Your task to perform on an android device: turn notification dots on Image 0: 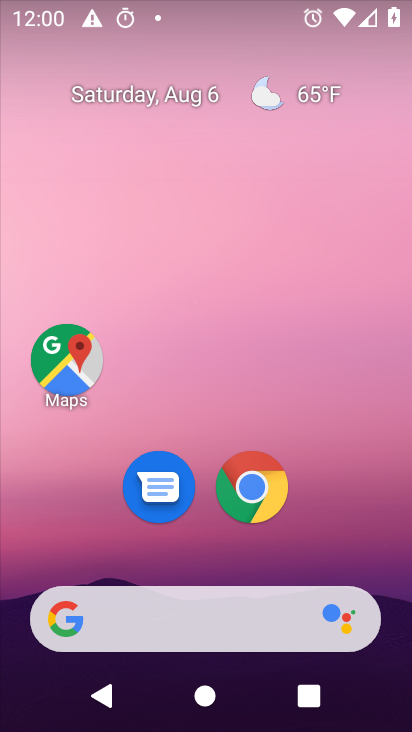
Step 0: drag from (157, 533) to (283, 40)
Your task to perform on an android device: turn notification dots on Image 1: 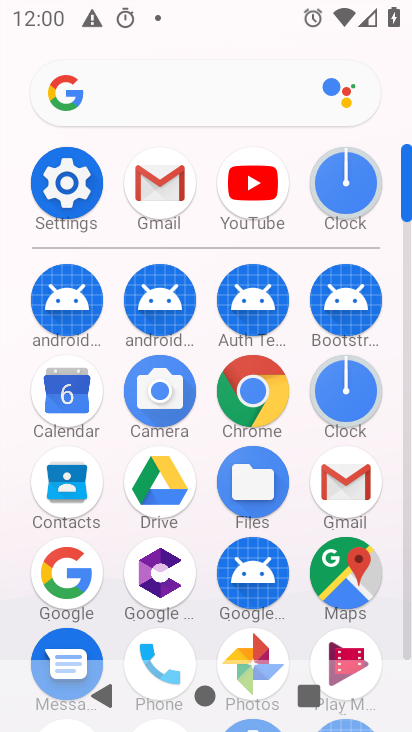
Step 1: click (55, 182)
Your task to perform on an android device: turn notification dots on Image 2: 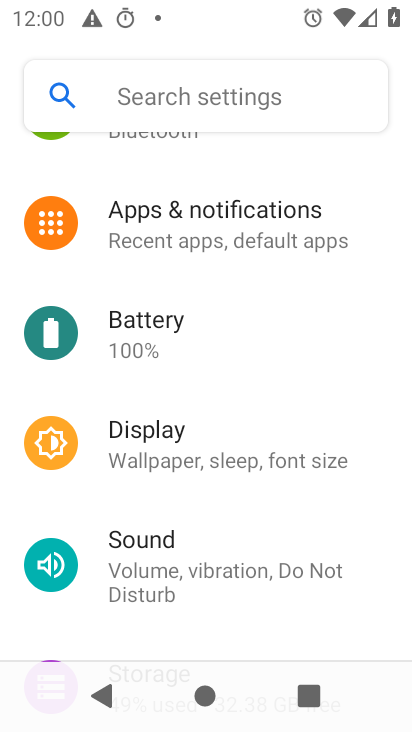
Step 2: click (282, 231)
Your task to perform on an android device: turn notification dots on Image 3: 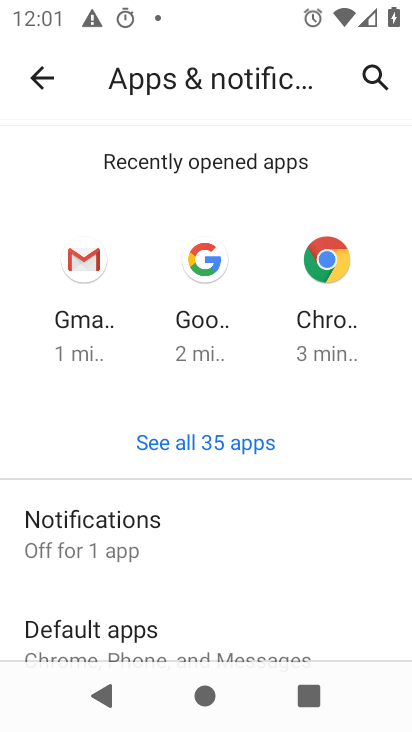
Step 3: click (282, 231)
Your task to perform on an android device: turn notification dots on Image 4: 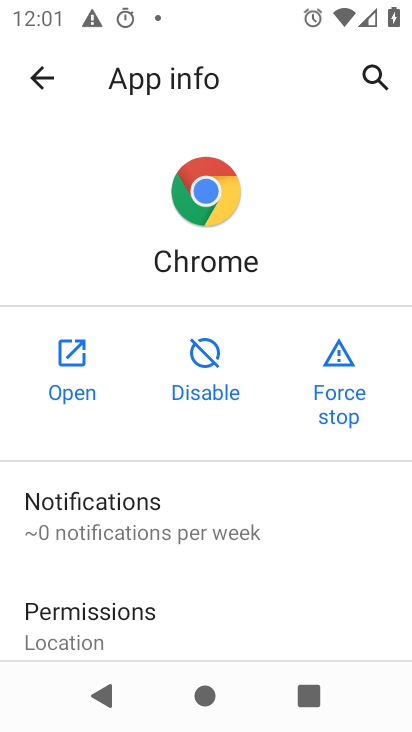
Step 4: click (76, 520)
Your task to perform on an android device: turn notification dots on Image 5: 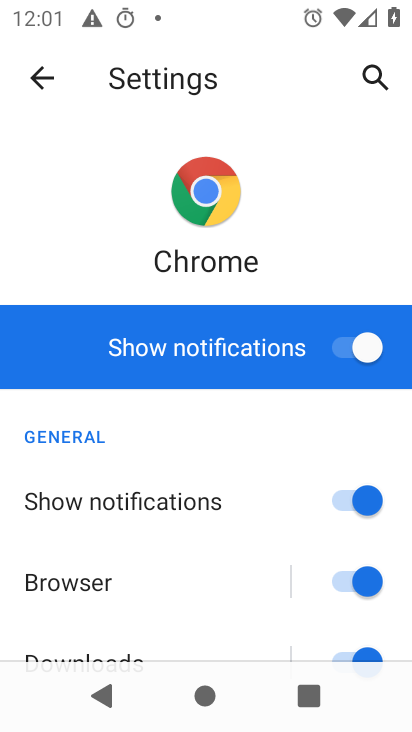
Step 5: drag from (172, 613) to (288, 74)
Your task to perform on an android device: turn notification dots on Image 6: 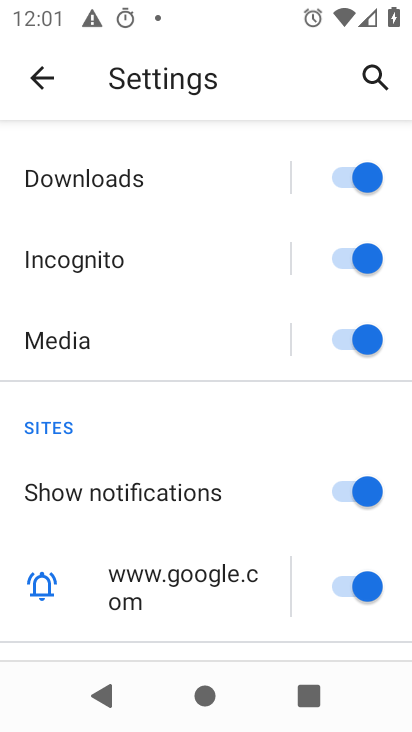
Step 6: drag from (210, 618) to (304, 120)
Your task to perform on an android device: turn notification dots on Image 7: 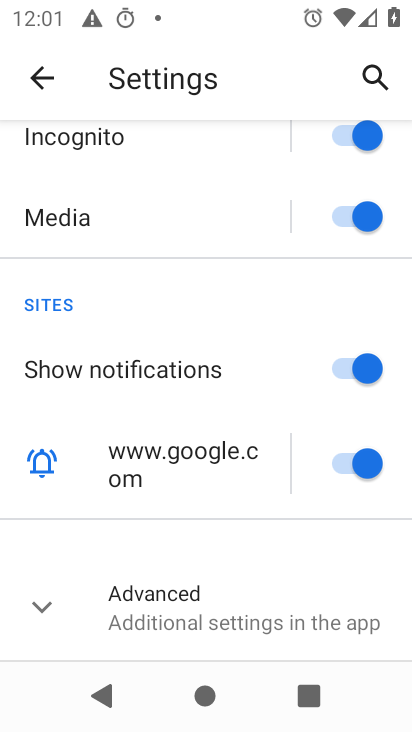
Step 7: drag from (225, 226) to (236, 123)
Your task to perform on an android device: turn notification dots on Image 8: 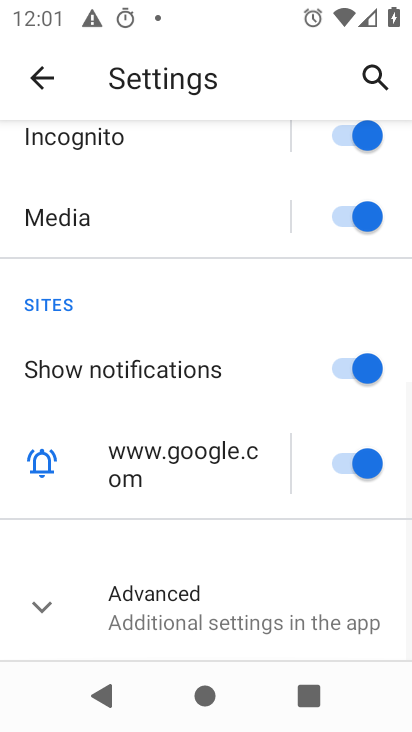
Step 8: click (169, 603)
Your task to perform on an android device: turn notification dots on Image 9: 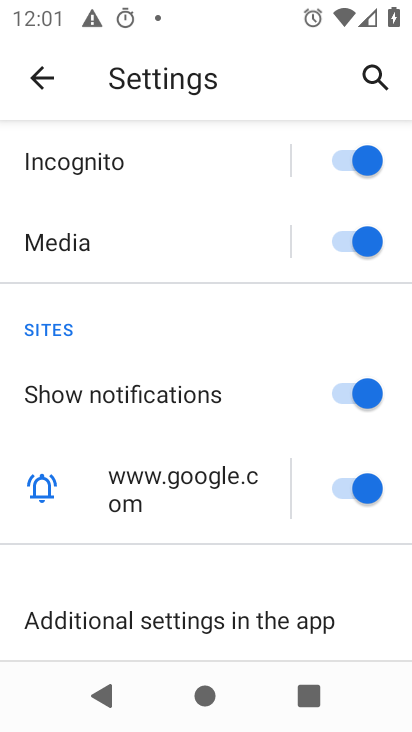
Step 9: drag from (137, 523) to (251, 77)
Your task to perform on an android device: turn notification dots on Image 10: 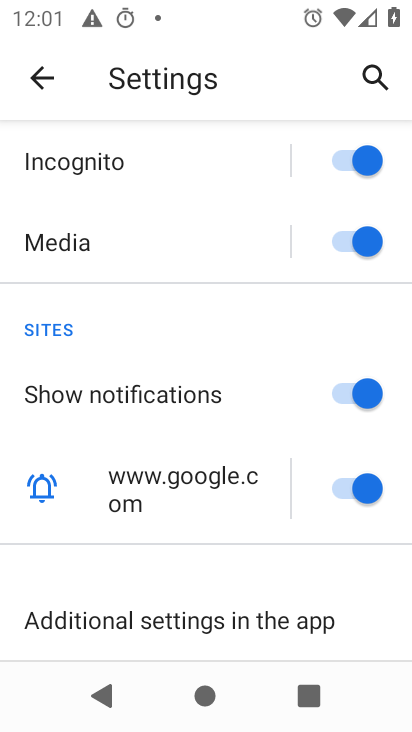
Step 10: drag from (222, 667) to (259, 48)
Your task to perform on an android device: turn notification dots on Image 11: 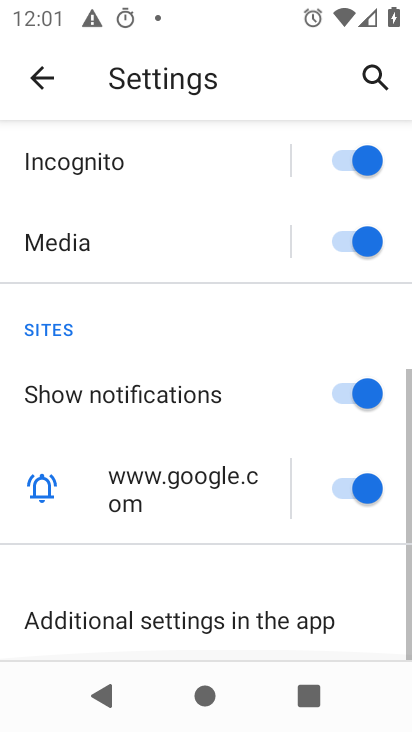
Step 11: drag from (196, 478) to (234, 128)
Your task to perform on an android device: turn notification dots on Image 12: 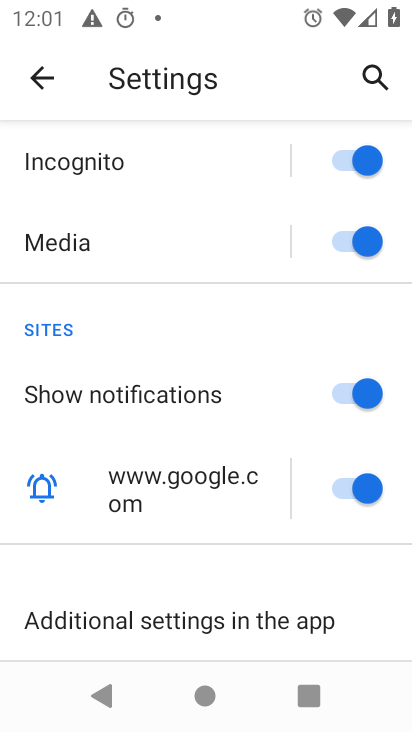
Step 12: drag from (226, 177) to (154, 653)
Your task to perform on an android device: turn notification dots on Image 13: 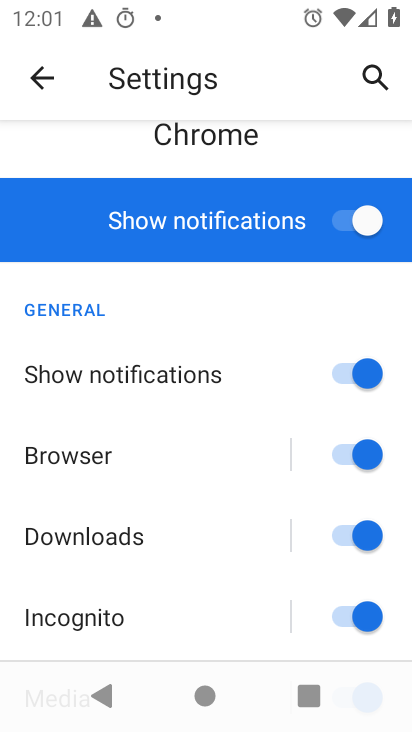
Step 13: drag from (198, 245) to (186, 685)
Your task to perform on an android device: turn notification dots on Image 14: 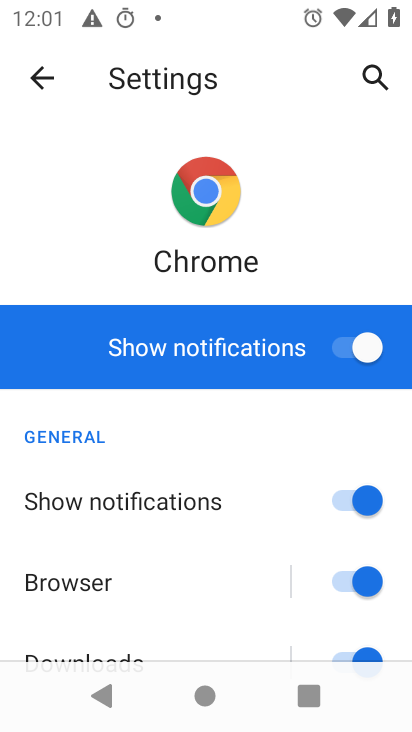
Step 14: press back button
Your task to perform on an android device: turn notification dots on Image 15: 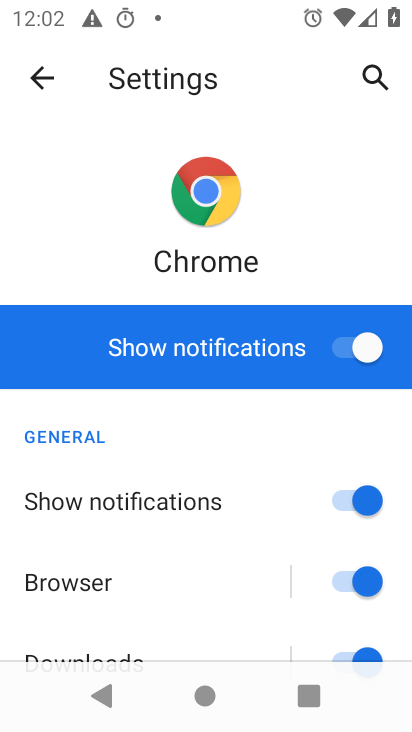
Step 15: press back button
Your task to perform on an android device: turn notification dots on Image 16: 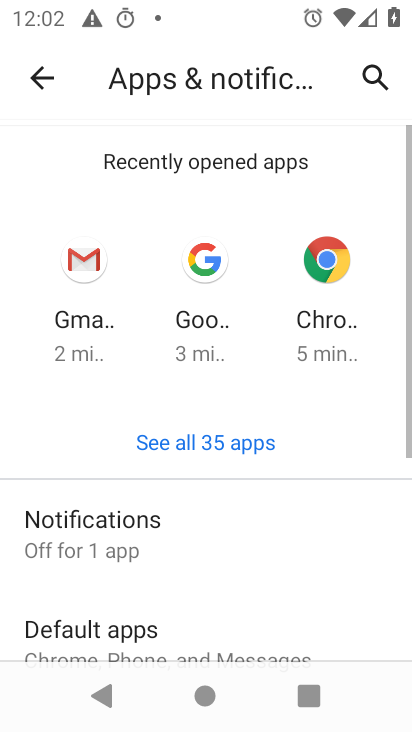
Step 16: press back button
Your task to perform on an android device: turn notification dots on Image 17: 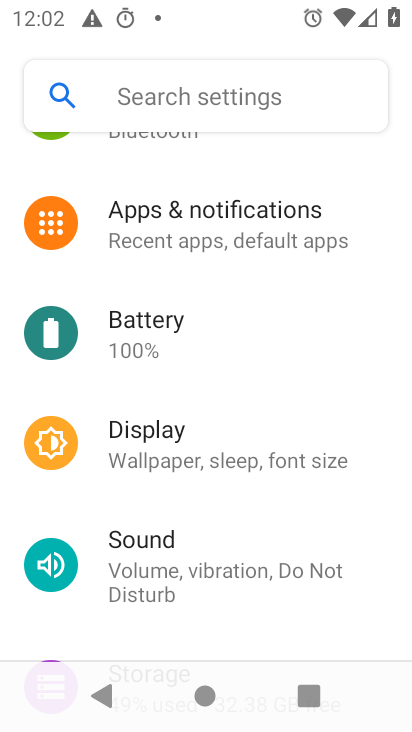
Step 17: click (242, 208)
Your task to perform on an android device: turn notification dots on Image 18: 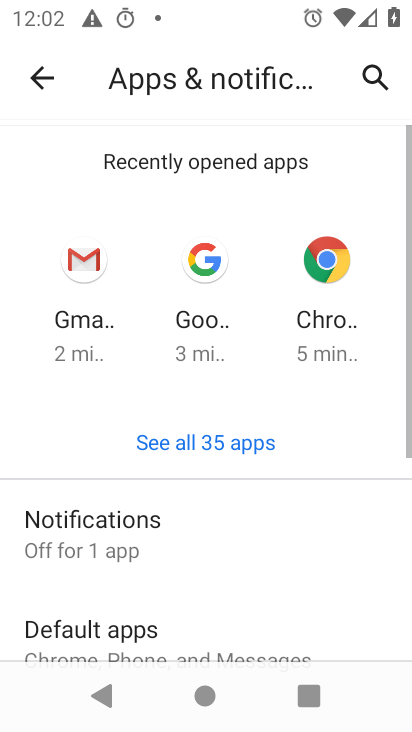
Step 18: drag from (191, 580) to (272, 53)
Your task to perform on an android device: turn notification dots on Image 19: 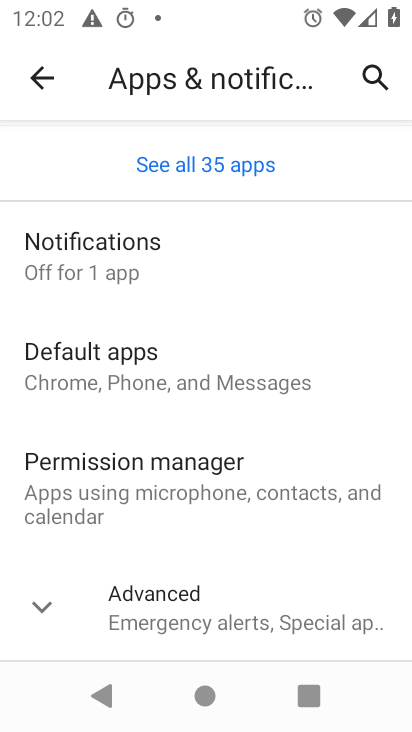
Step 19: click (220, 590)
Your task to perform on an android device: turn notification dots on Image 20: 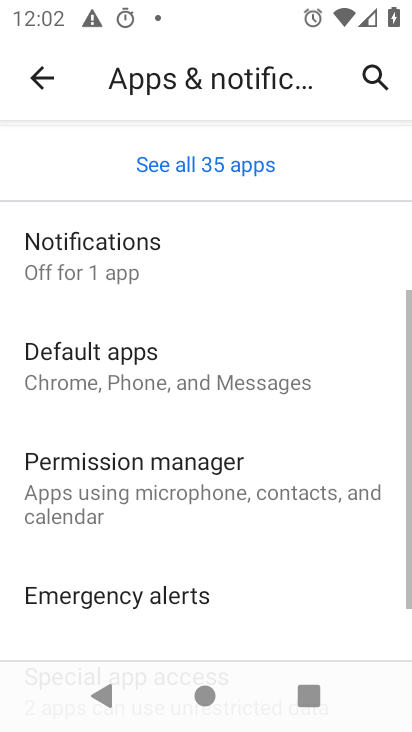
Step 20: drag from (214, 619) to (285, 107)
Your task to perform on an android device: turn notification dots on Image 21: 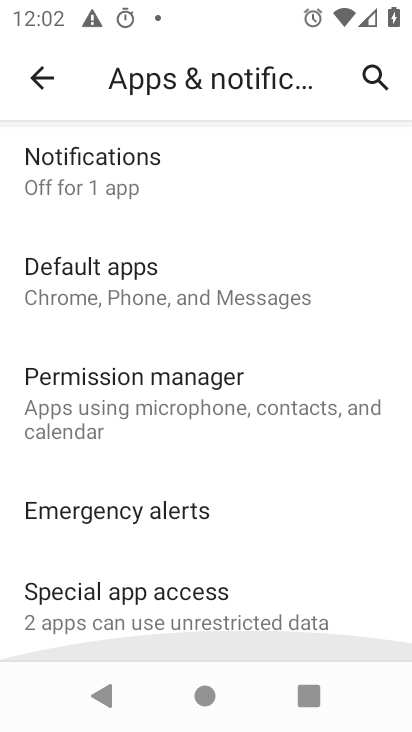
Step 21: click (86, 190)
Your task to perform on an android device: turn notification dots on Image 22: 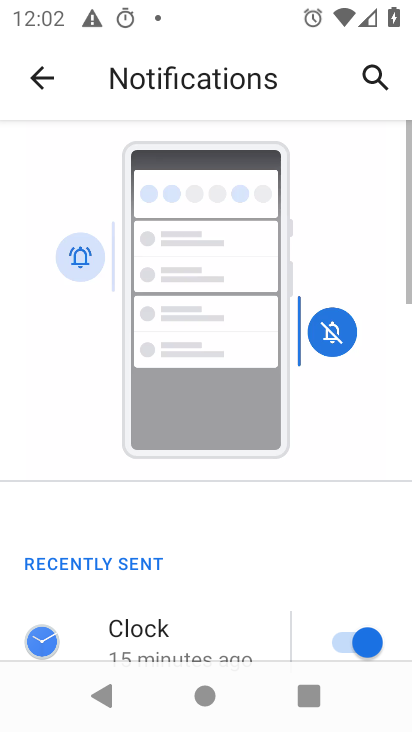
Step 22: drag from (244, 567) to (299, 77)
Your task to perform on an android device: turn notification dots on Image 23: 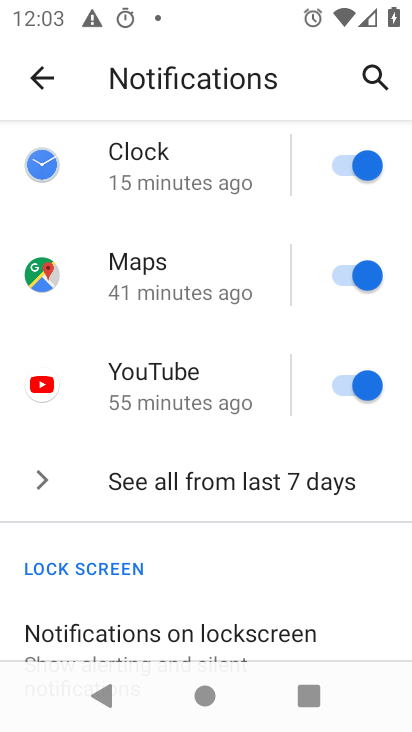
Step 23: drag from (167, 625) to (241, 73)
Your task to perform on an android device: turn notification dots on Image 24: 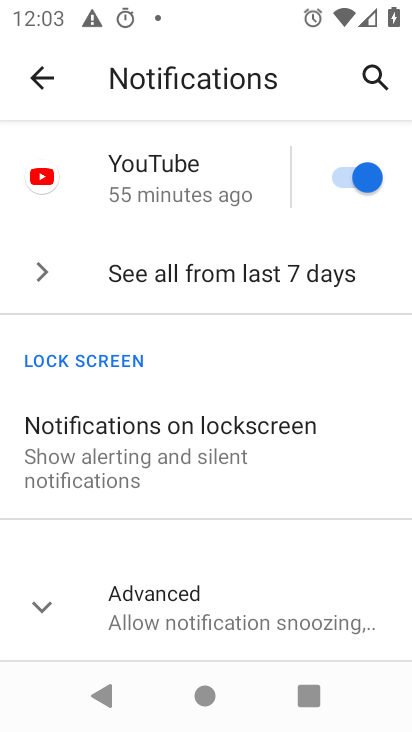
Step 24: click (216, 593)
Your task to perform on an android device: turn notification dots on Image 25: 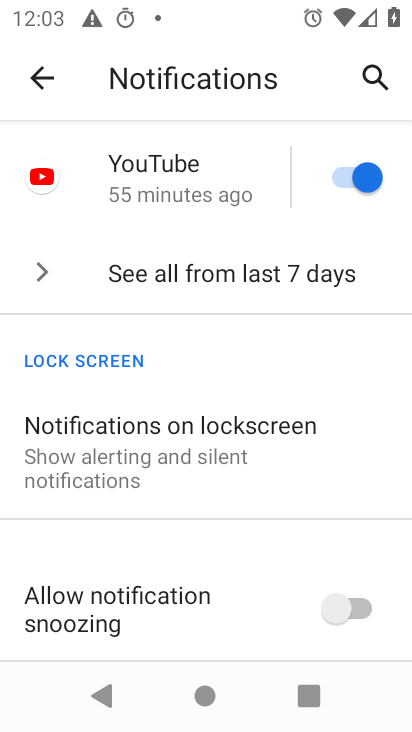
Step 25: drag from (219, 594) to (269, 177)
Your task to perform on an android device: turn notification dots on Image 26: 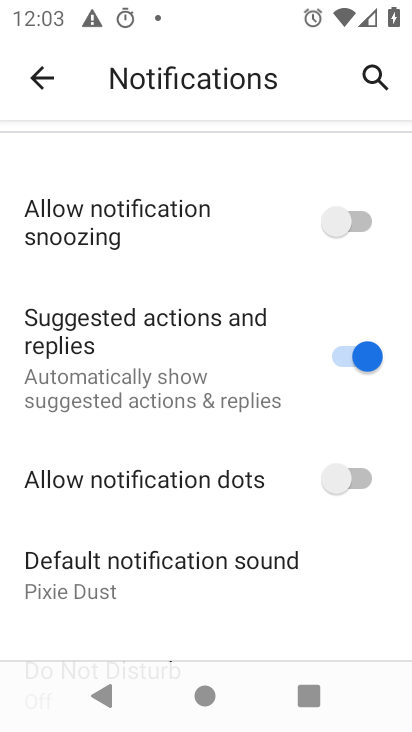
Step 26: click (344, 483)
Your task to perform on an android device: turn notification dots on Image 27: 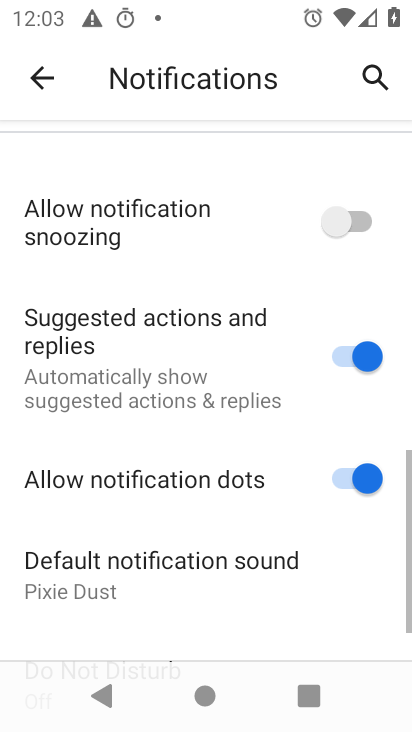
Step 27: task complete